Your task to perform on an android device: toggle javascript in the chrome app Image 0: 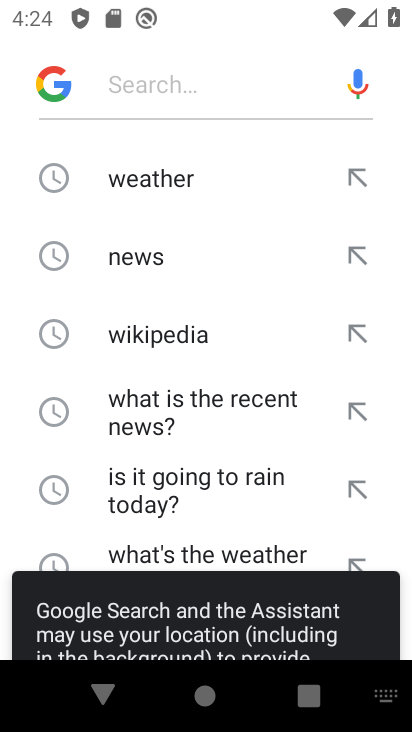
Step 0: press home button
Your task to perform on an android device: toggle javascript in the chrome app Image 1: 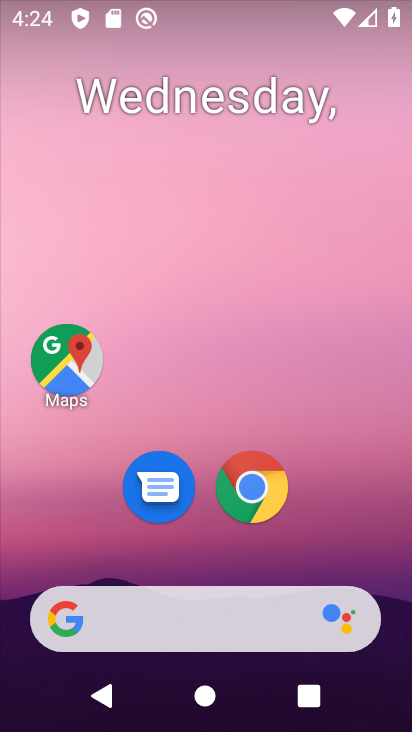
Step 1: click (258, 483)
Your task to perform on an android device: toggle javascript in the chrome app Image 2: 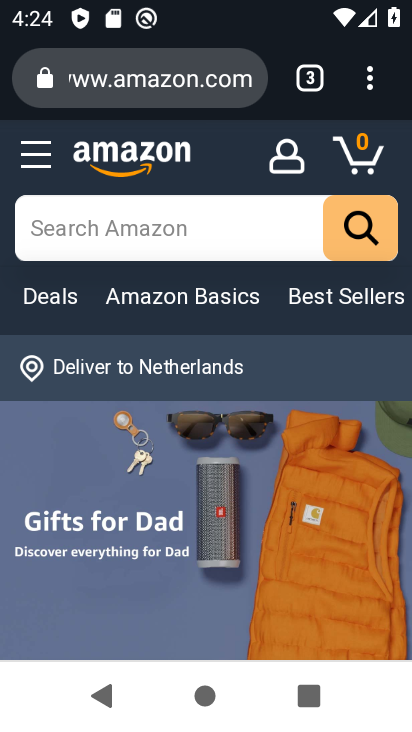
Step 2: drag from (366, 75) to (187, 542)
Your task to perform on an android device: toggle javascript in the chrome app Image 3: 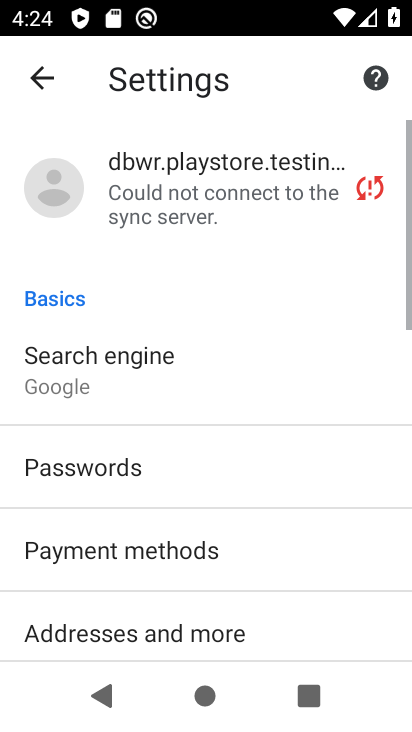
Step 3: drag from (156, 545) to (179, 11)
Your task to perform on an android device: toggle javascript in the chrome app Image 4: 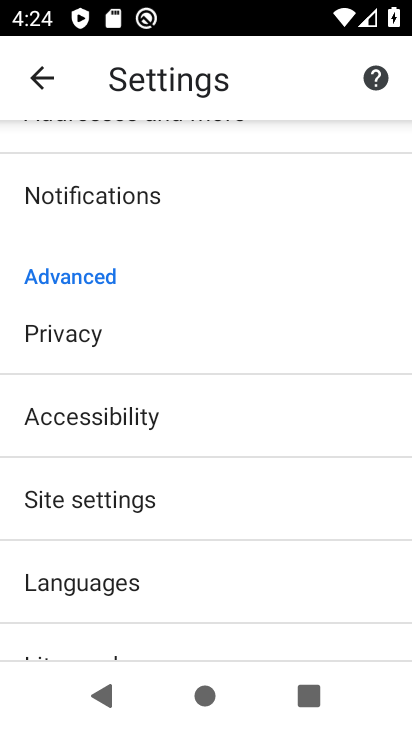
Step 4: click (119, 478)
Your task to perform on an android device: toggle javascript in the chrome app Image 5: 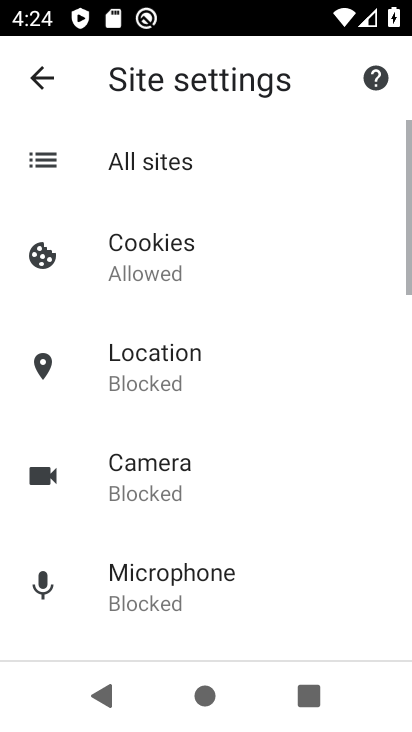
Step 5: drag from (159, 474) to (232, 49)
Your task to perform on an android device: toggle javascript in the chrome app Image 6: 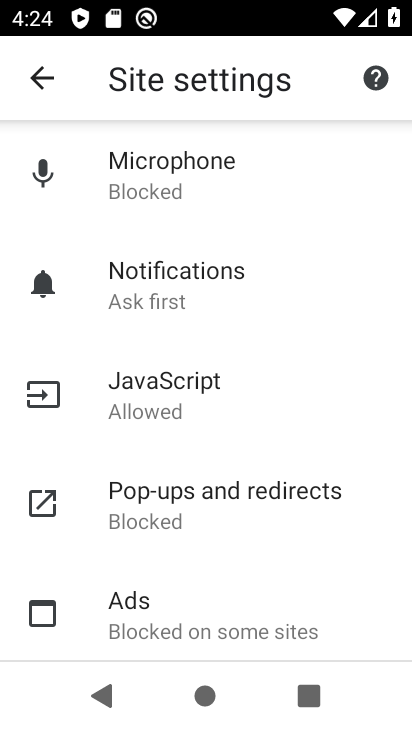
Step 6: click (167, 402)
Your task to perform on an android device: toggle javascript in the chrome app Image 7: 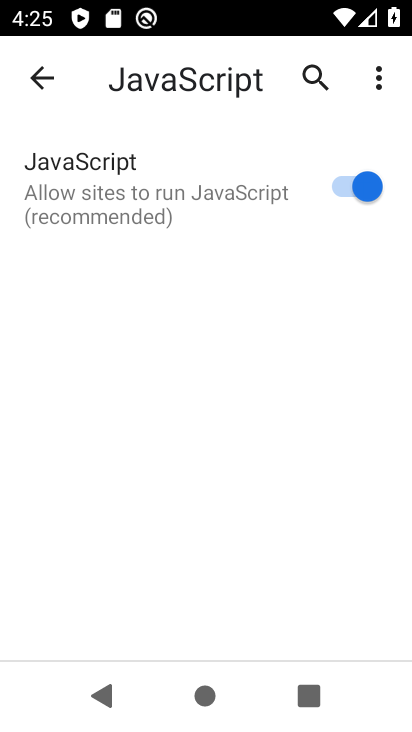
Step 7: click (360, 187)
Your task to perform on an android device: toggle javascript in the chrome app Image 8: 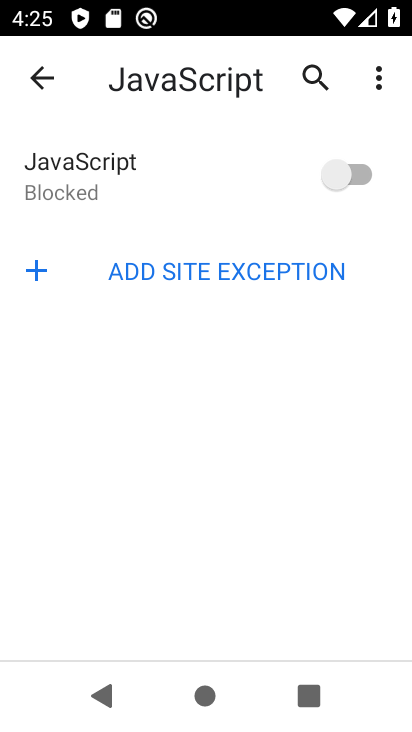
Step 8: task complete